Your task to perform on an android device: Open Google Chrome and click the shortcut for Amazon.com Image 0: 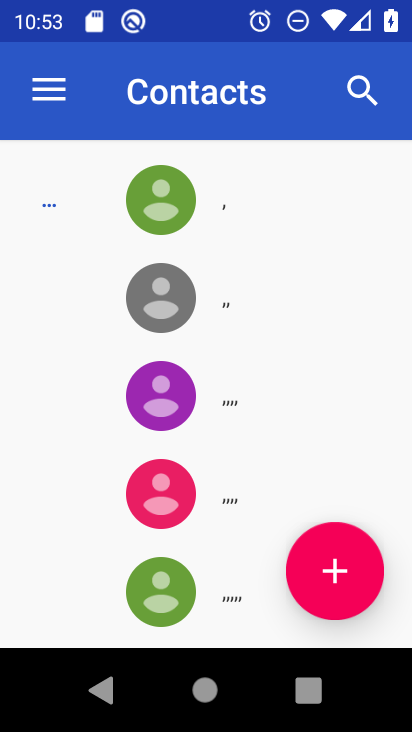
Step 0: press home button
Your task to perform on an android device: Open Google Chrome and click the shortcut for Amazon.com Image 1: 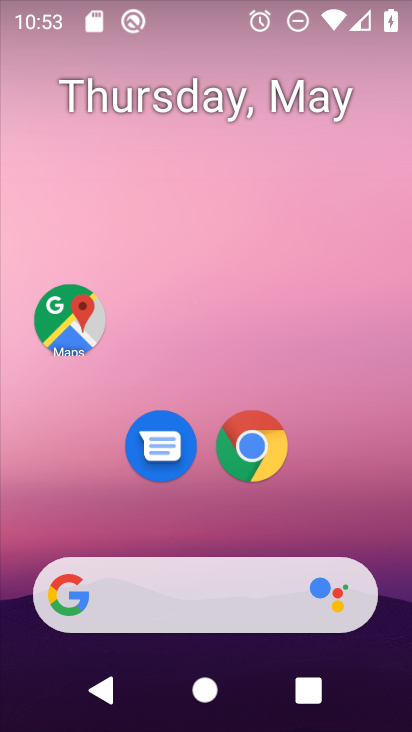
Step 1: drag from (271, 606) to (255, 298)
Your task to perform on an android device: Open Google Chrome and click the shortcut for Amazon.com Image 2: 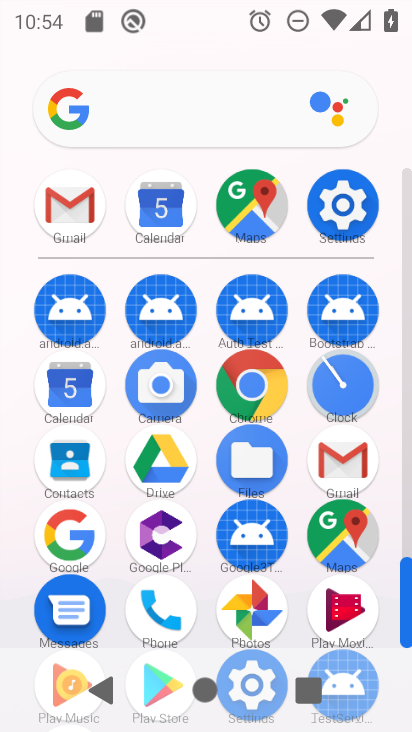
Step 2: click (262, 373)
Your task to perform on an android device: Open Google Chrome and click the shortcut for Amazon.com Image 3: 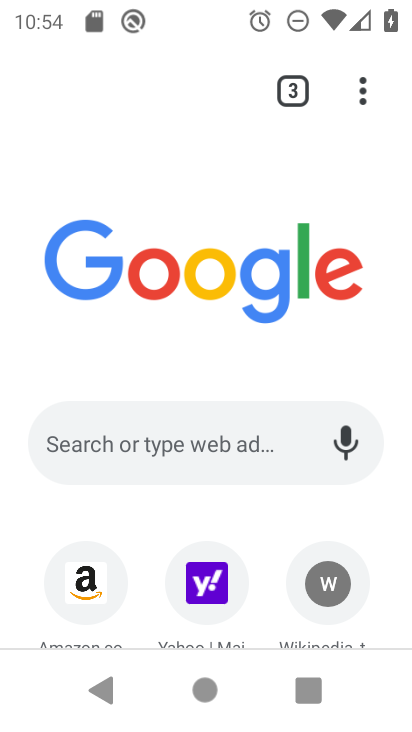
Step 3: click (83, 566)
Your task to perform on an android device: Open Google Chrome and click the shortcut for Amazon.com Image 4: 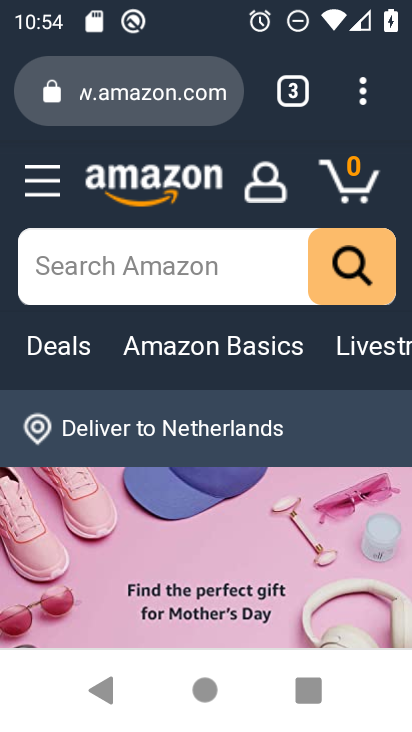
Step 4: task complete